Your task to perform on an android device: Find coffee shops on Maps Image 0: 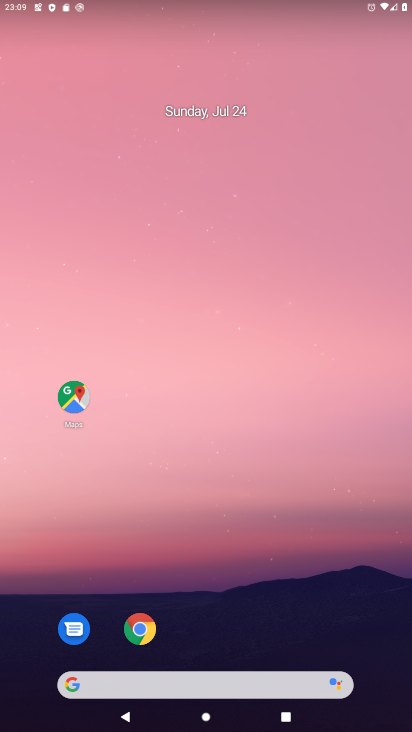
Step 0: drag from (200, 661) to (226, 134)
Your task to perform on an android device: Find coffee shops on Maps Image 1: 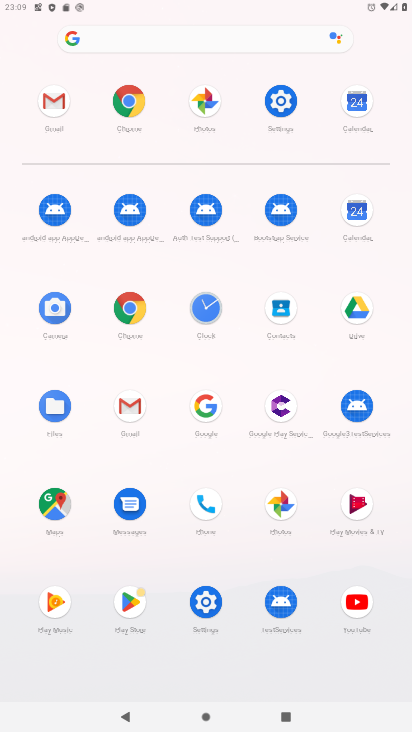
Step 1: click (51, 510)
Your task to perform on an android device: Find coffee shops on Maps Image 2: 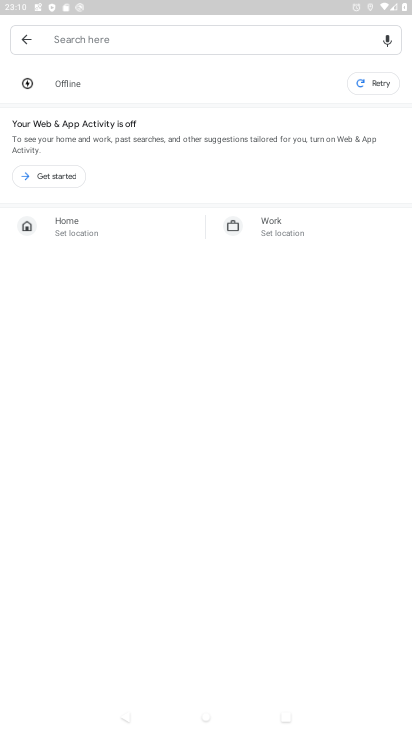
Step 2: click (79, 32)
Your task to perform on an android device: Find coffee shops on Maps Image 3: 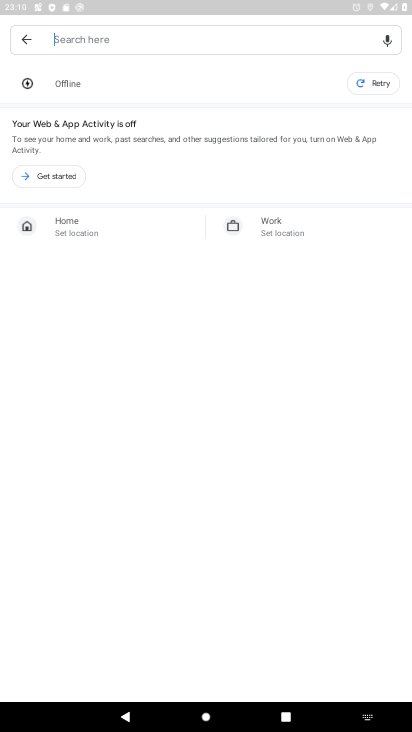
Step 3: type "coffee"
Your task to perform on an android device: Find coffee shops on Maps Image 4: 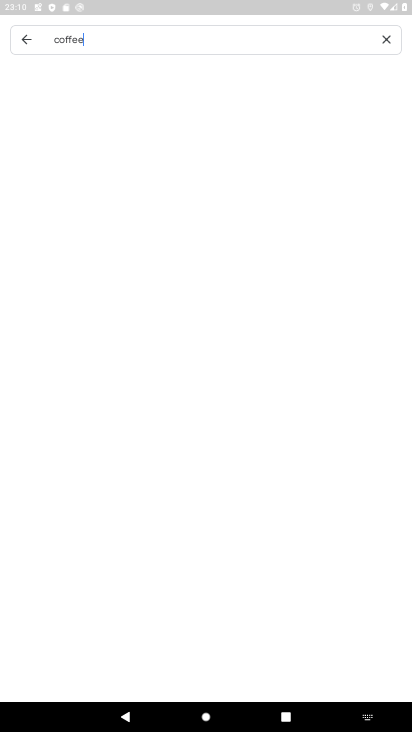
Step 4: type ""
Your task to perform on an android device: Find coffee shops on Maps Image 5: 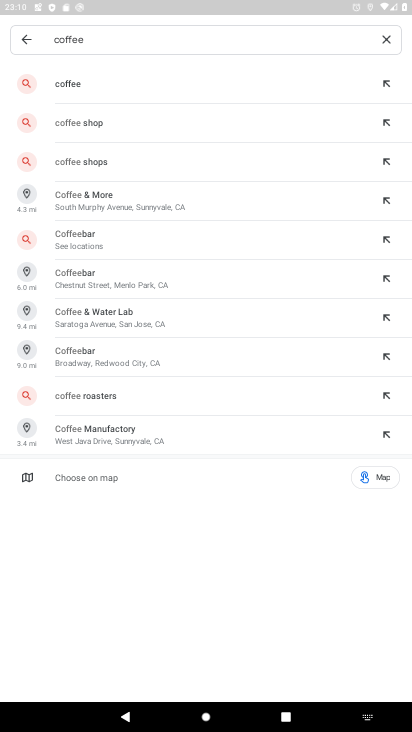
Step 5: click (126, 86)
Your task to perform on an android device: Find coffee shops on Maps Image 6: 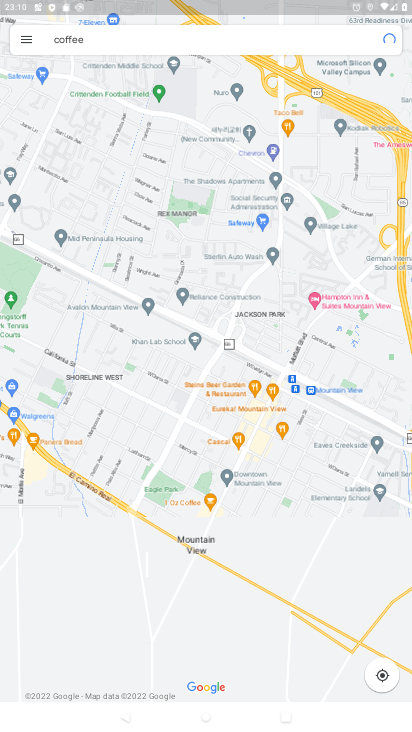
Step 6: task complete